Your task to perform on an android device: turn on sleep mode Image 0: 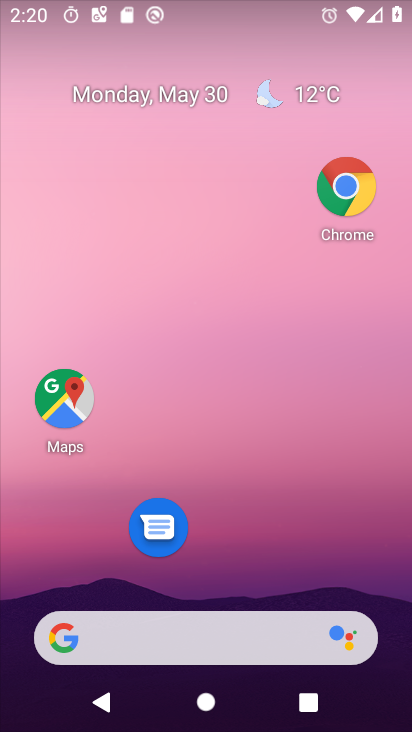
Step 0: drag from (246, 532) to (250, 48)
Your task to perform on an android device: turn on sleep mode Image 1: 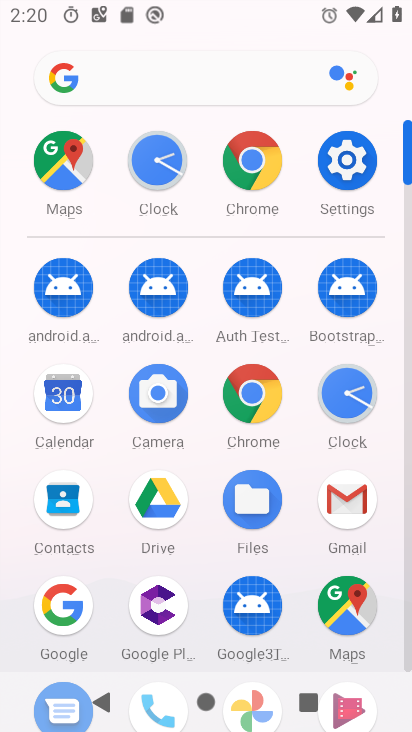
Step 1: click (342, 151)
Your task to perform on an android device: turn on sleep mode Image 2: 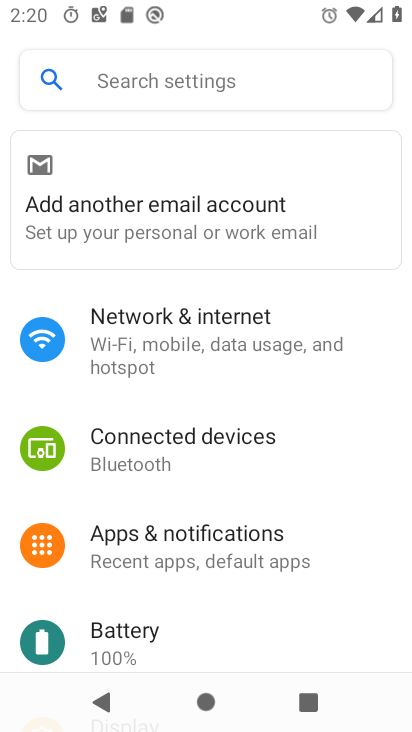
Step 2: drag from (207, 532) to (273, 96)
Your task to perform on an android device: turn on sleep mode Image 3: 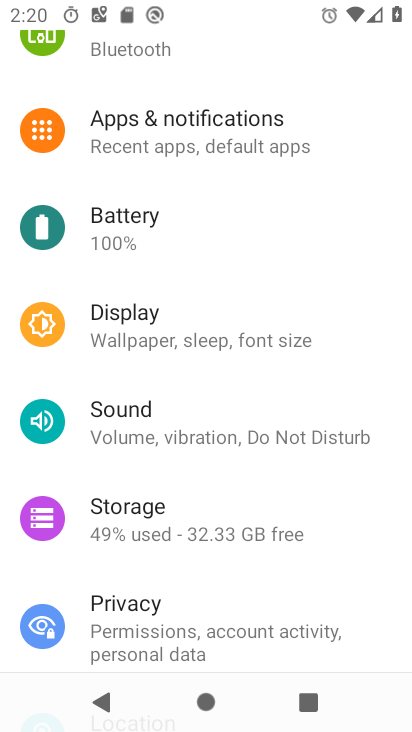
Step 3: click (157, 338)
Your task to perform on an android device: turn on sleep mode Image 4: 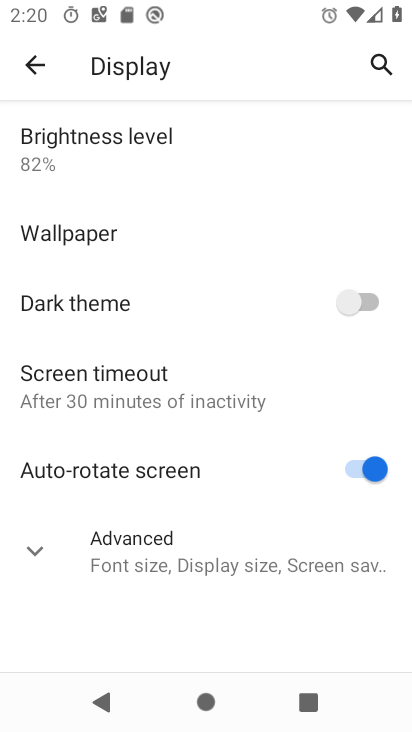
Step 4: drag from (209, 514) to (224, 229)
Your task to perform on an android device: turn on sleep mode Image 5: 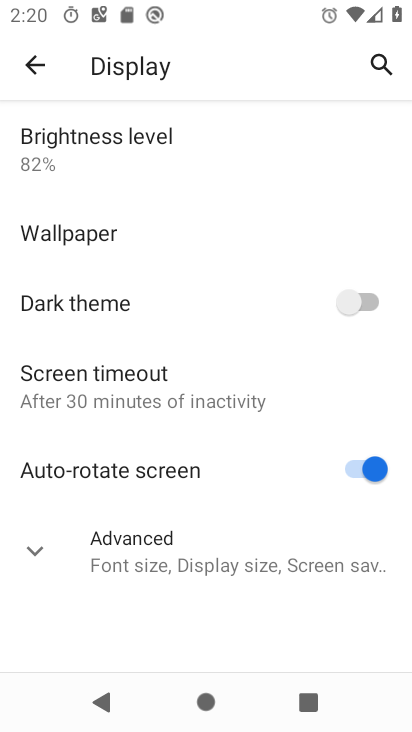
Step 5: click (182, 361)
Your task to perform on an android device: turn on sleep mode Image 6: 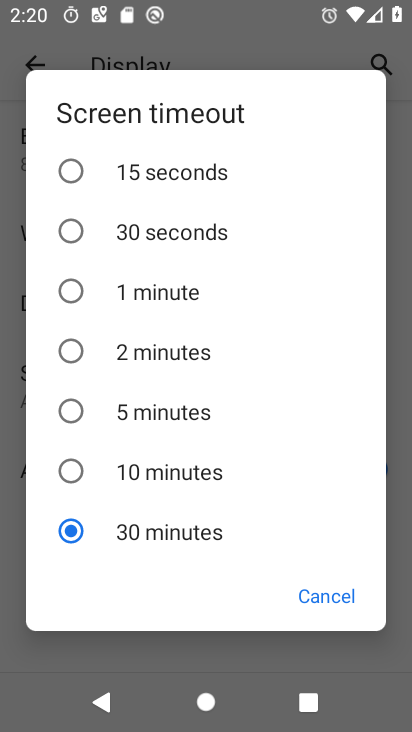
Step 6: task complete